Your task to perform on an android device: Open Yahoo.com Image 0: 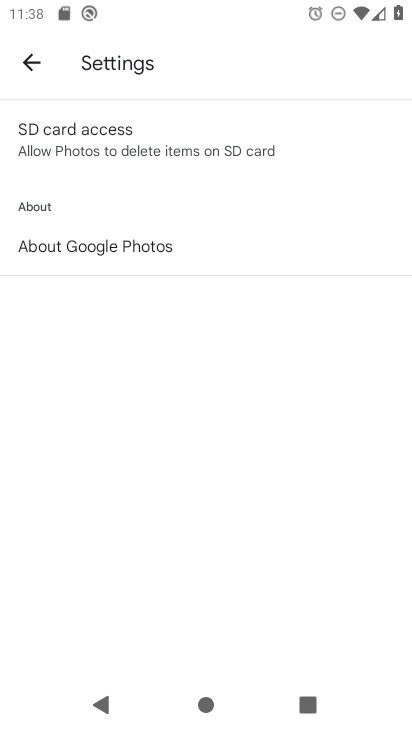
Step 0: press home button
Your task to perform on an android device: Open Yahoo.com Image 1: 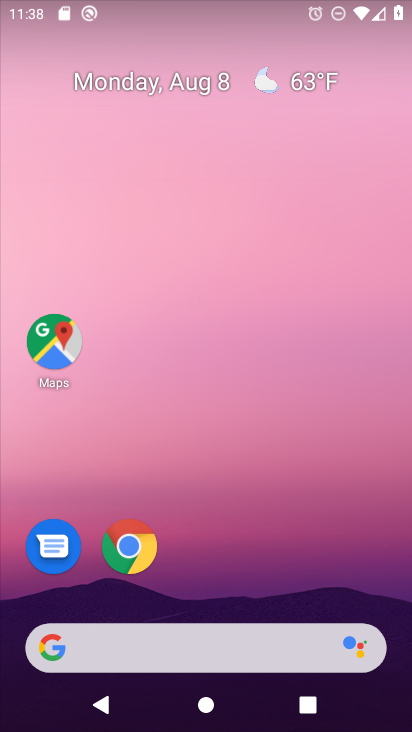
Step 1: drag from (234, 607) to (266, 22)
Your task to perform on an android device: Open Yahoo.com Image 2: 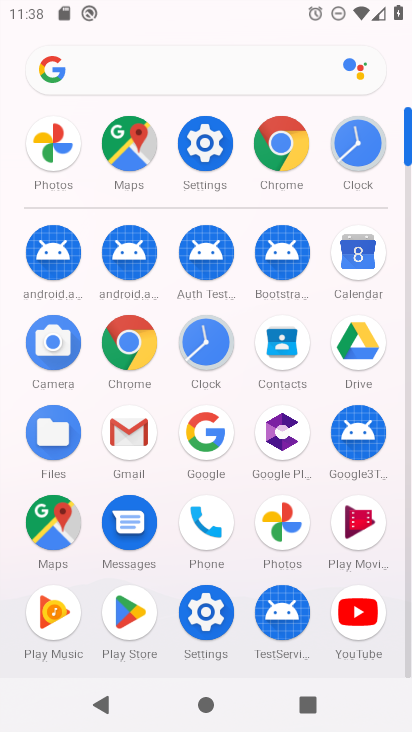
Step 2: click (276, 136)
Your task to perform on an android device: Open Yahoo.com Image 3: 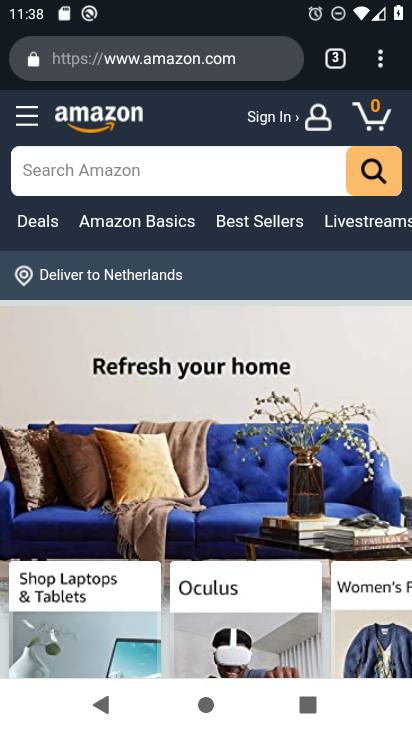
Step 3: click (336, 58)
Your task to perform on an android device: Open Yahoo.com Image 4: 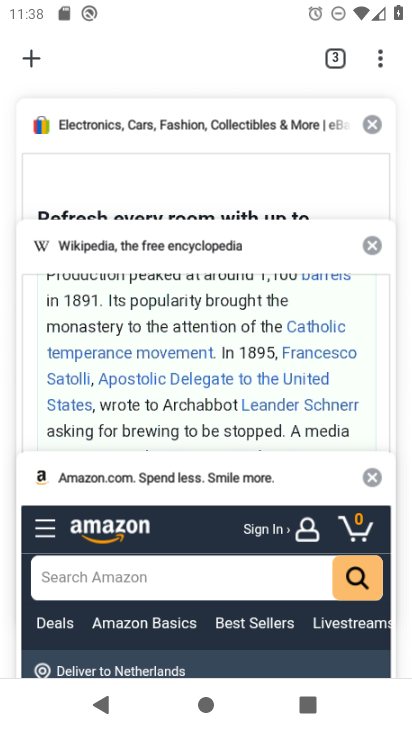
Step 4: click (35, 56)
Your task to perform on an android device: Open Yahoo.com Image 5: 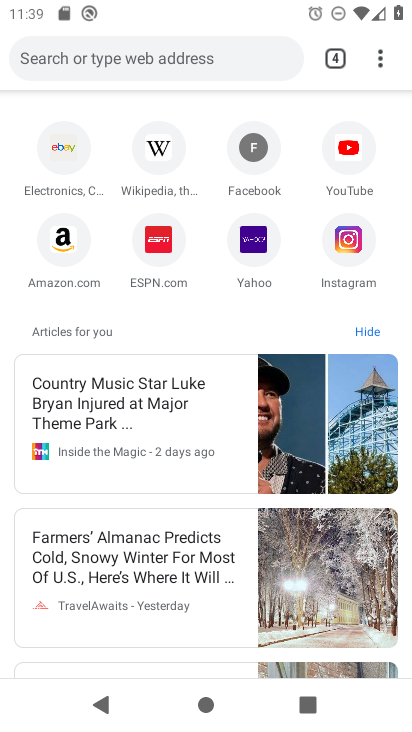
Step 5: click (253, 234)
Your task to perform on an android device: Open Yahoo.com Image 6: 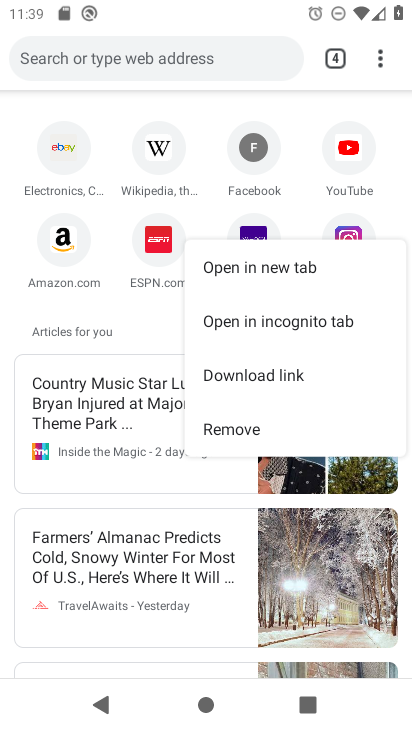
Step 6: click (261, 228)
Your task to perform on an android device: Open Yahoo.com Image 7: 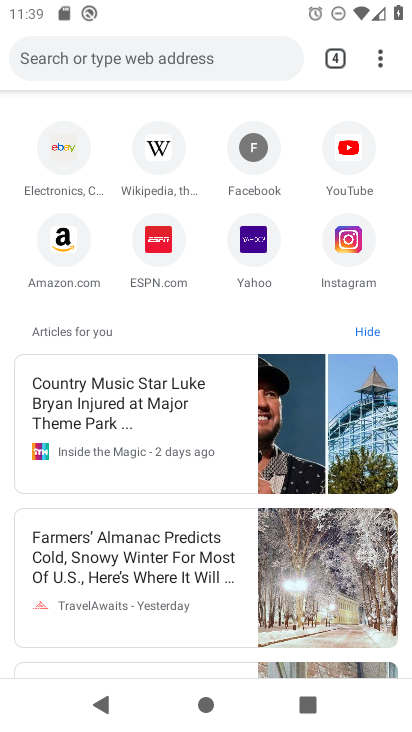
Step 7: click (251, 237)
Your task to perform on an android device: Open Yahoo.com Image 8: 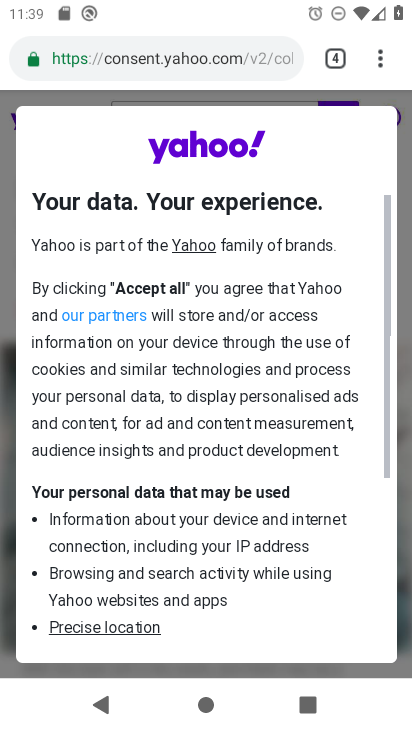
Step 8: drag from (216, 611) to (249, 247)
Your task to perform on an android device: Open Yahoo.com Image 9: 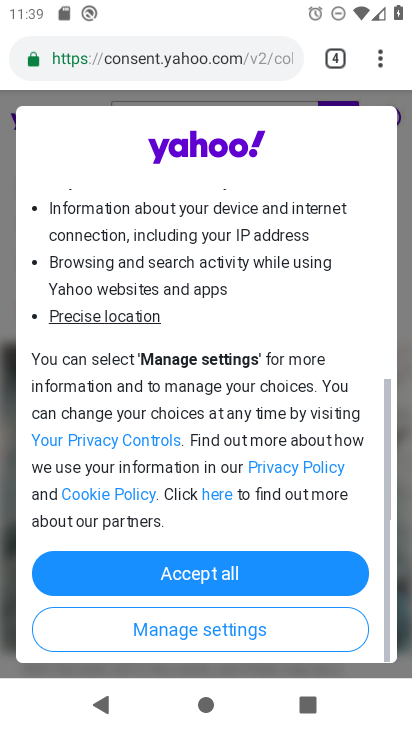
Step 9: click (221, 569)
Your task to perform on an android device: Open Yahoo.com Image 10: 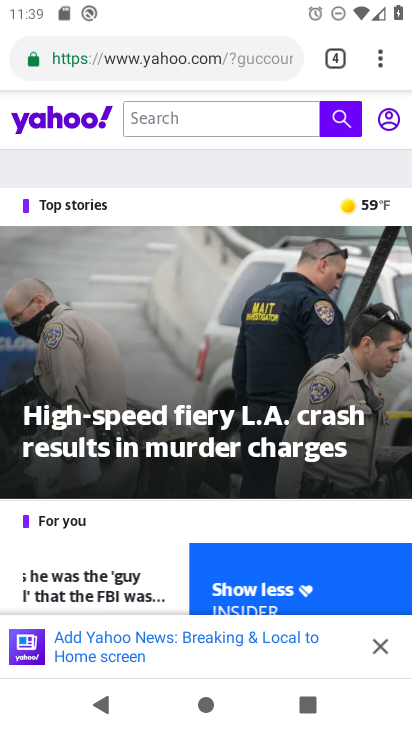
Step 10: click (372, 642)
Your task to perform on an android device: Open Yahoo.com Image 11: 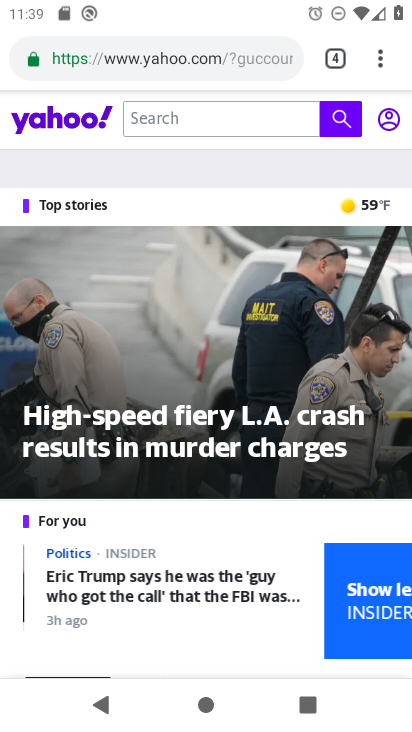
Step 11: task complete